Your task to perform on an android device: delete location history Image 0: 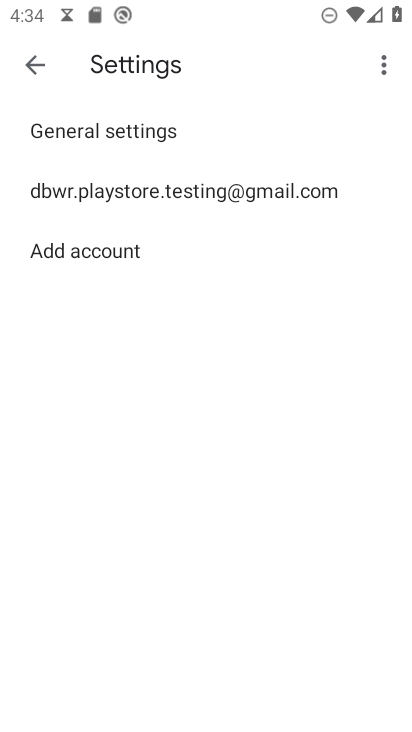
Step 0: press home button
Your task to perform on an android device: delete location history Image 1: 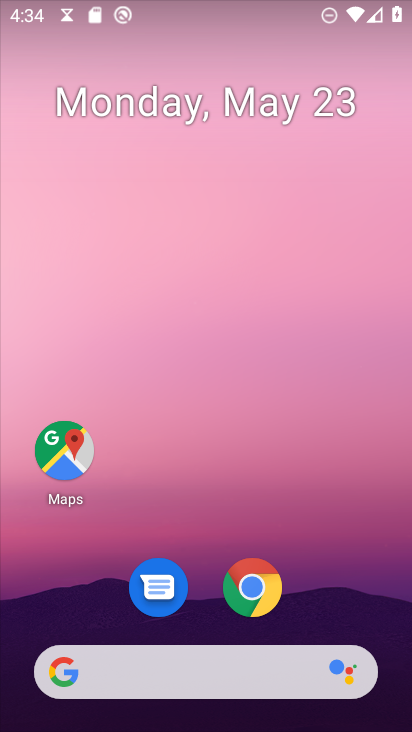
Step 1: drag from (212, 620) to (252, 83)
Your task to perform on an android device: delete location history Image 2: 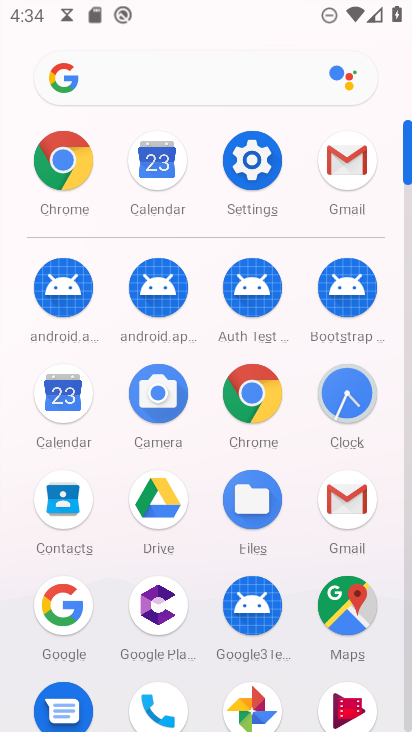
Step 2: click (354, 605)
Your task to perform on an android device: delete location history Image 3: 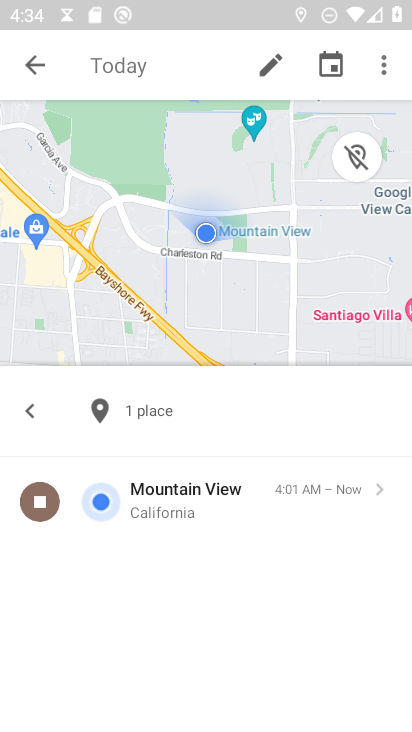
Step 3: click (29, 58)
Your task to perform on an android device: delete location history Image 4: 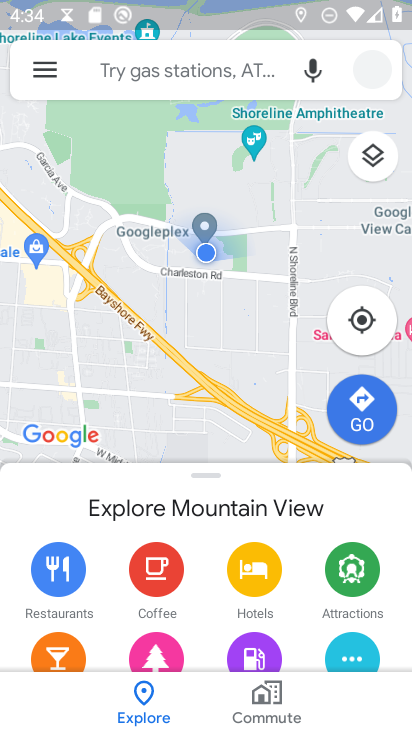
Step 4: click (32, 63)
Your task to perform on an android device: delete location history Image 5: 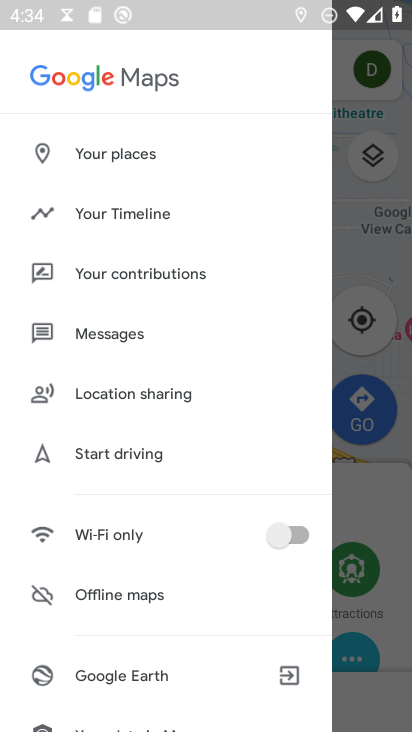
Step 5: click (131, 217)
Your task to perform on an android device: delete location history Image 6: 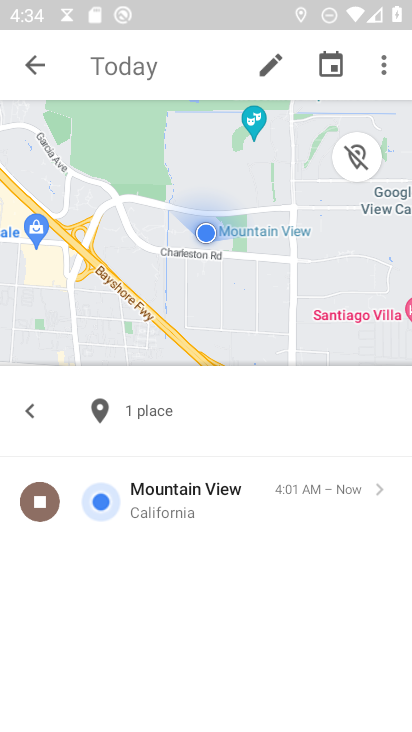
Step 6: click (376, 76)
Your task to perform on an android device: delete location history Image 7: 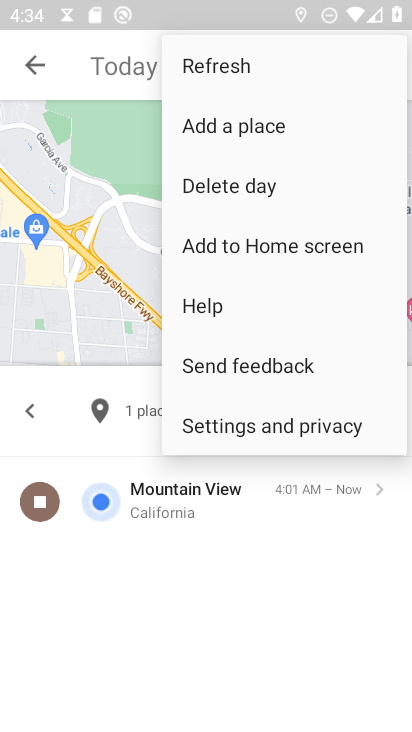
Step 7: click (271, 425)
Your task to perform on an android device: delete location history Image 8: 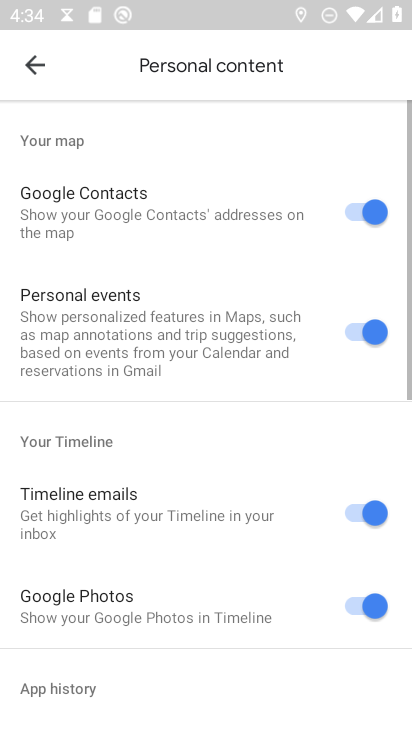
Step 8: drag from (207, 618) to (277, 72)
Your task to perform on an android device: delete location history Image 9: 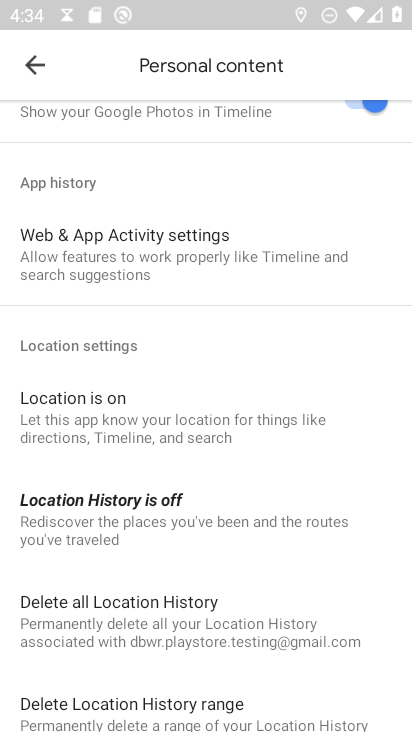
Step 9: drag from (192, 506) to (234, 236)
Your task to perform on an android device: delete location history Image 10: 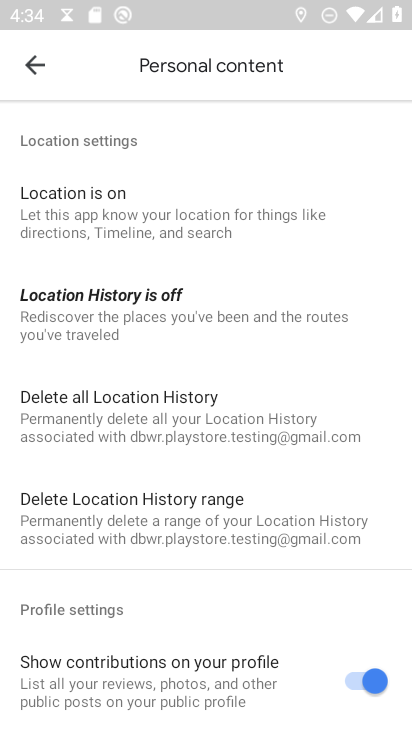
Step 10: click (166, 404)
Your task to perform on an android device: delete location history Image 11: 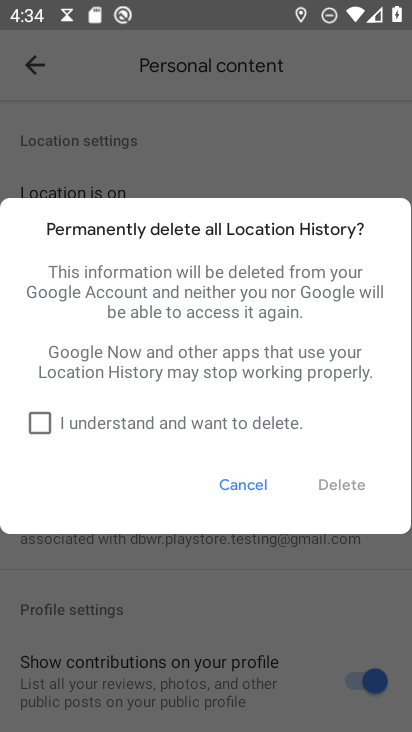
Step 11: click (132, 426)
Your task to perform on an android device: delete location history Image 12: 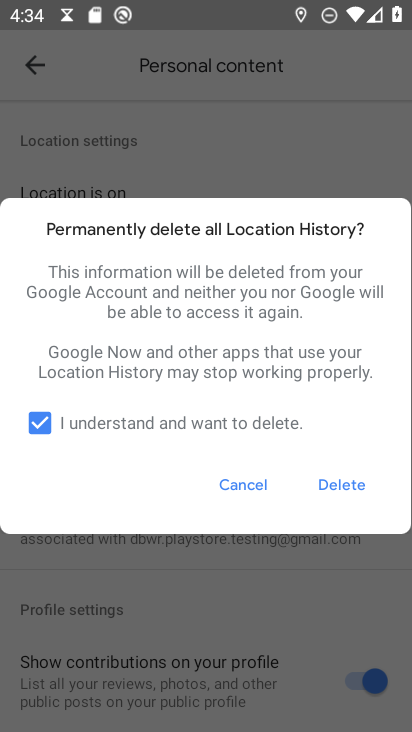
Step 12: click (338, 480)
Your task to perform on an android device: delete location history Image 13: 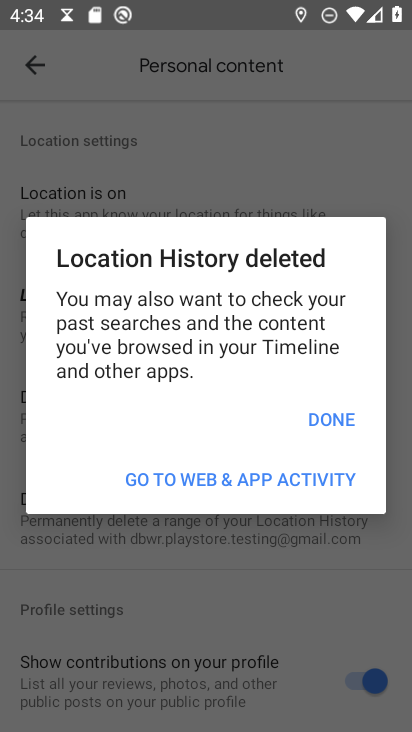
Step 13: click (327, 419)
Your task to perform on an android device: delete location history Image 14: 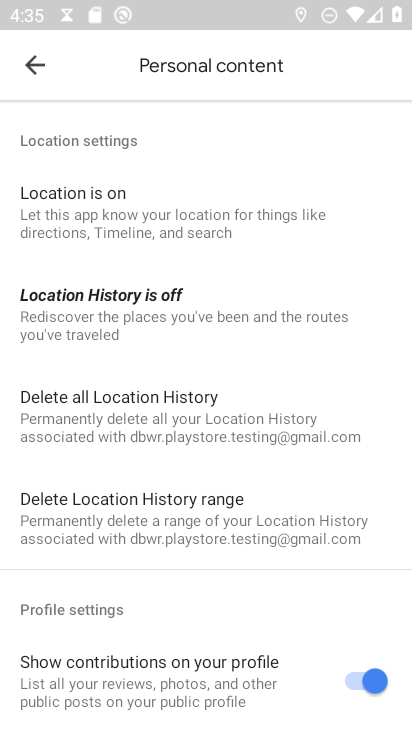
Step 14: task complete